Your task to perform on an android device: Show me the alarms in the clock app Image 0: 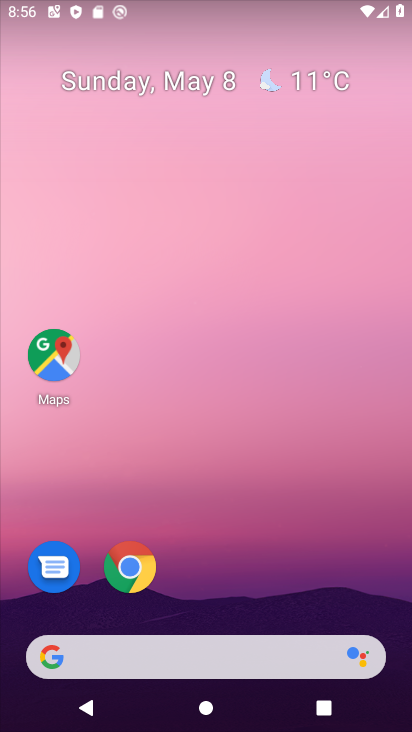
Step 0: drag from (231, 560) to (358, 7)
Your task to perform on an android device: Show me the alarms in the clock app Image 1: 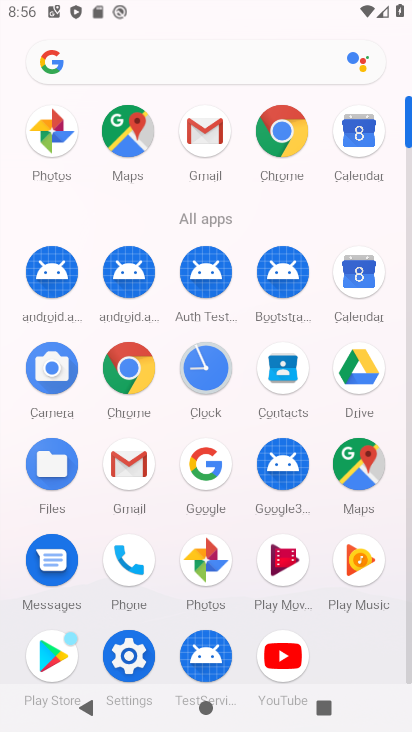
Step 1: click (208, 378)
Your task to perform on an android device: Show me the alarms in the clock app Image 2: 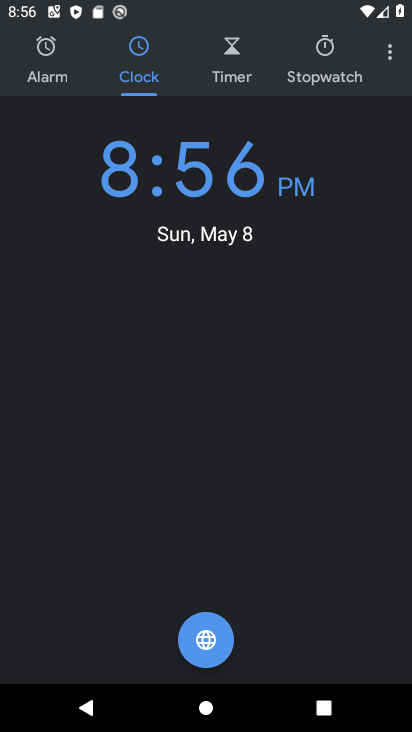
Step 2: click (43, 65)
Your task to perform on an android device: Show me the alarms in the clock app Image 3: 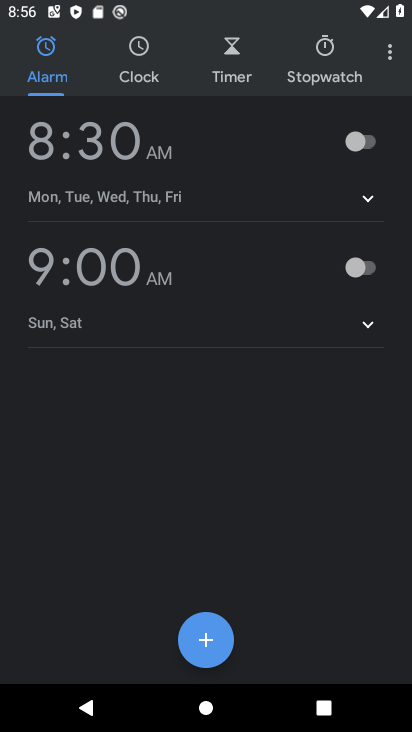
Step 3: task complete